Your task to perform on an android device: change the clock style Image 0: 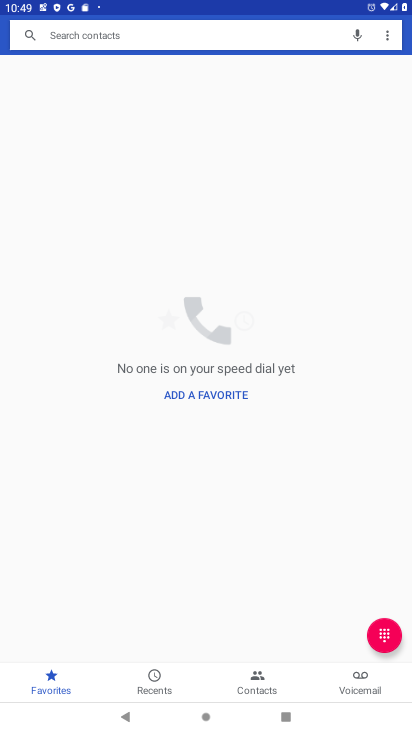
Step 0: press home button
Your task to perform on an android device: change the clock style Image 1: 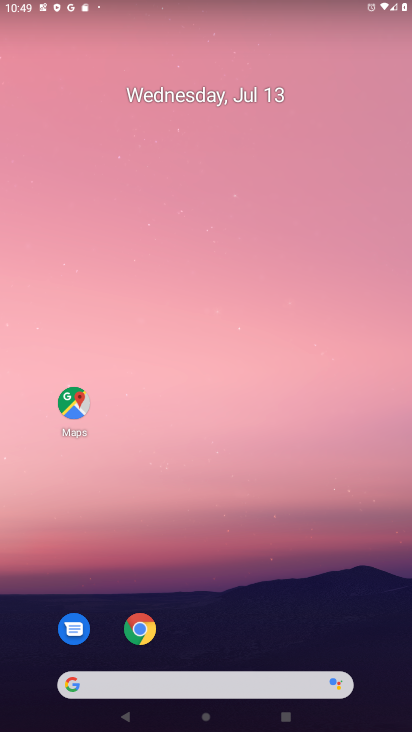
Step 1: drag from (250, 649) to (221, 231)
Your task to perform on an android device: change the clock style Image 2: 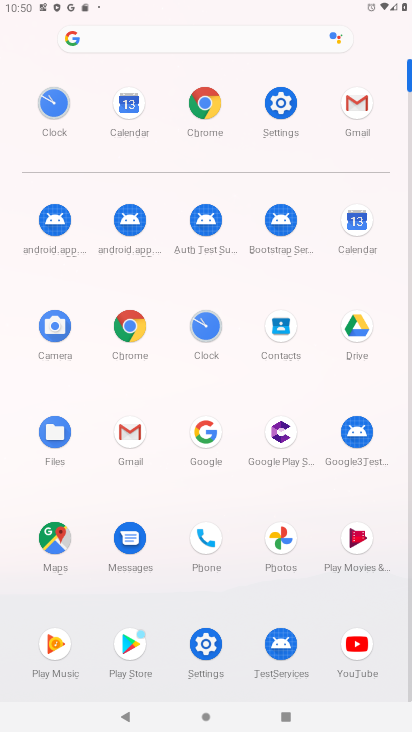
Step 2: click (58, 119)
Your task to perform on an android device: change the clock style Image 3: 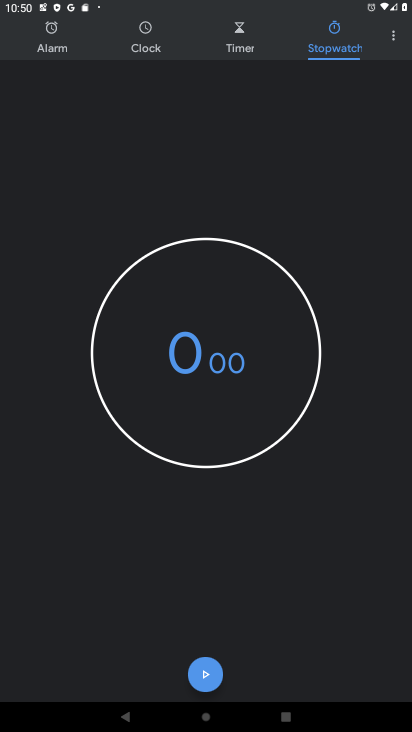
Step 3: click (398, 40)
Your task to perform on an android device: change the clock style Image 4: 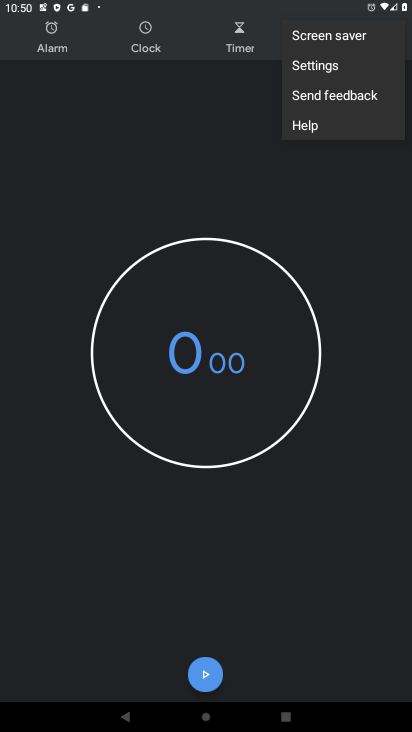
Step 4: click (329, 76)
Your task to perform on an android device: change the clock style Image 5: 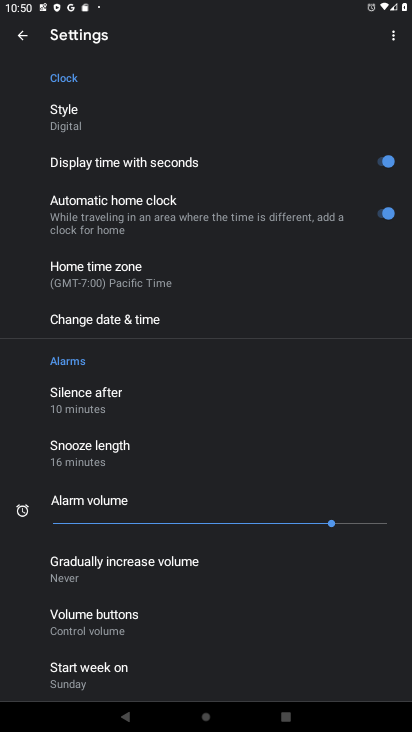
Step 5: click (135, 107)
Your task to perform on an android device: change the clock style Image 6: 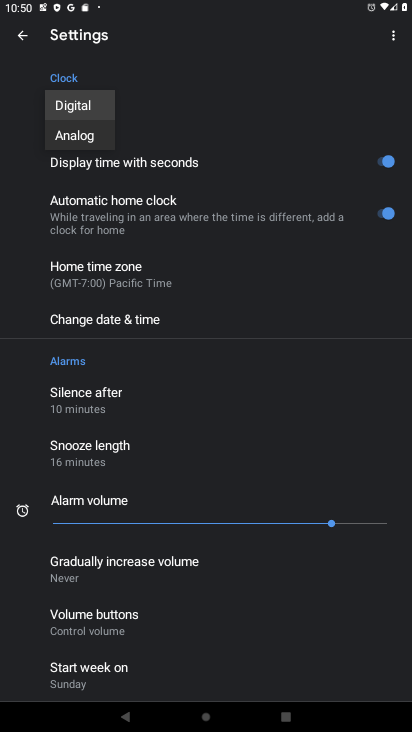
Step 6: click (99, 137)
Your task to perform on an android device: change the clock style Image 7: 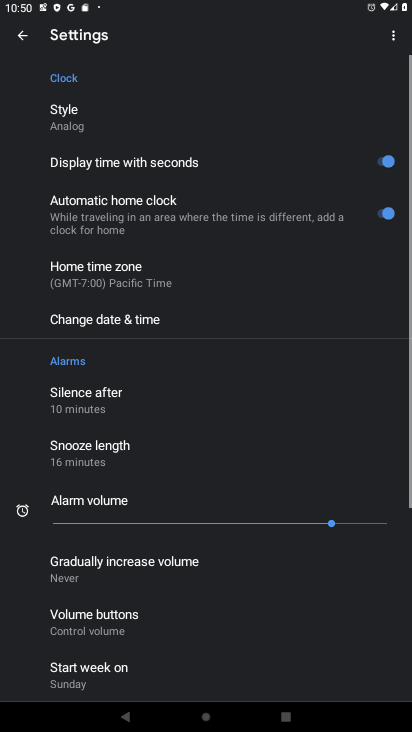
Step 7: task complete